Your task to perform on an android device: open a new tab in the chrome app Image 0: 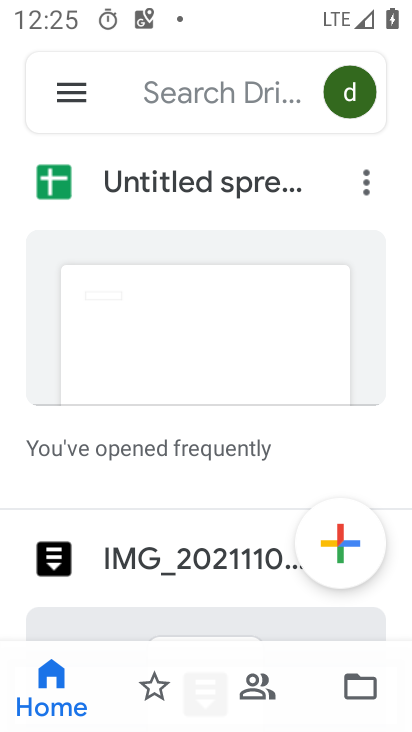
Step 0: press home button
Your task to perform on an android device: open a new tab in the chrome app Image 1: 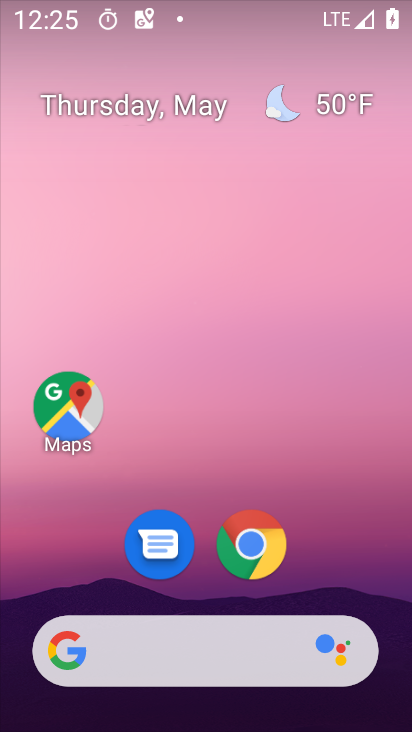
Step 1: click (252, 537)
Your task to perform on an android device: open a new tab in the chrome app Image 2: 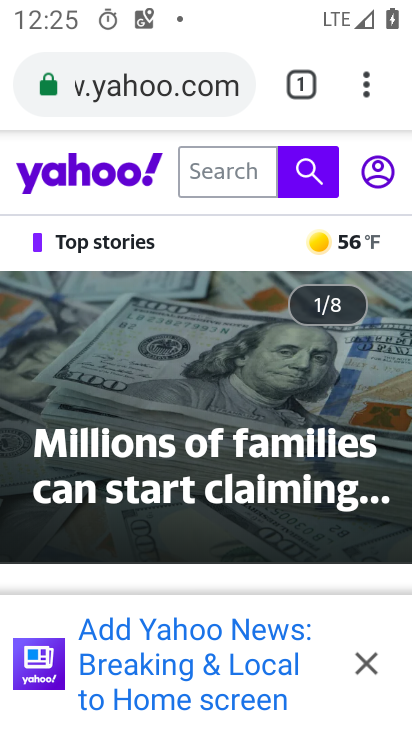
Step 2: click (372, 97)
Your task to perform on an android device: open a new tab in the chrome app Image 3: 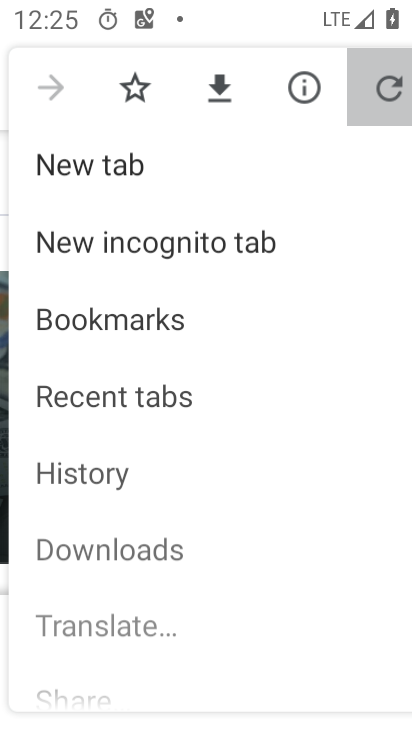
Step 3: task complete